Your task to perform on an android device: stop showing notifications on the lock screen Image 0: 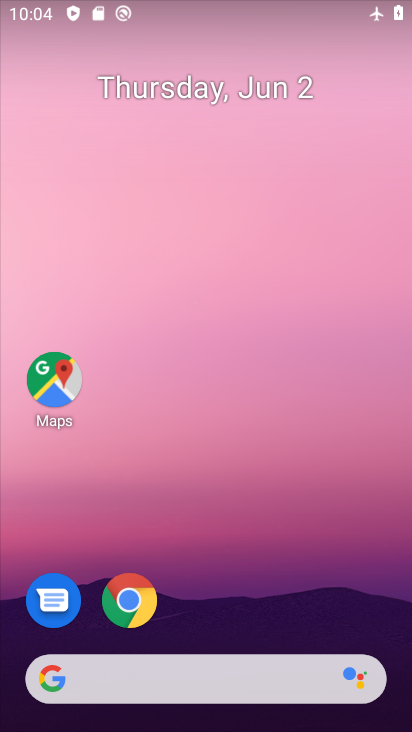
Step 0: press home button
Your task to perform on an android device: stop showing notifications on the lock screen Image 1: 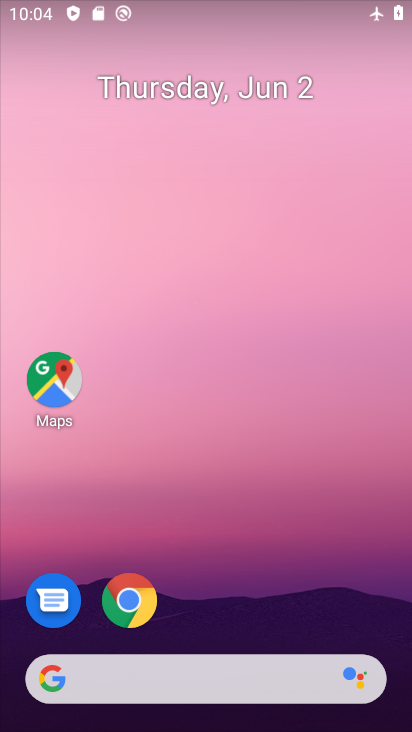
Step 1: drag from (184, 679) to (273, 190)
Your task to perform on an android device: stop showing notifications on the lock screen Image 2: 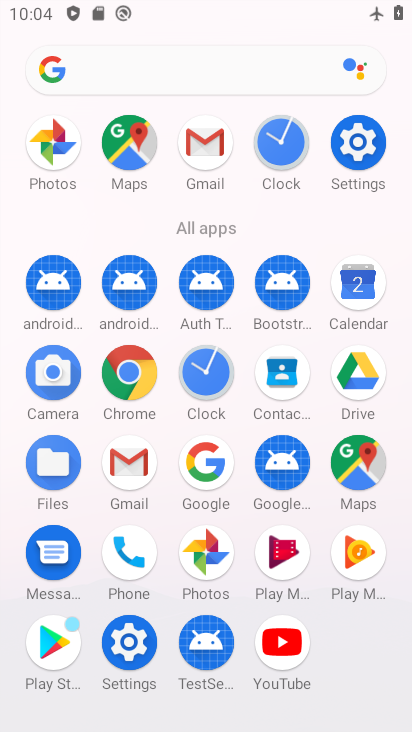
Step 2: click (359, 154)
Your task to perform on an android device: stop showing notifications on the lock screen Image 3: 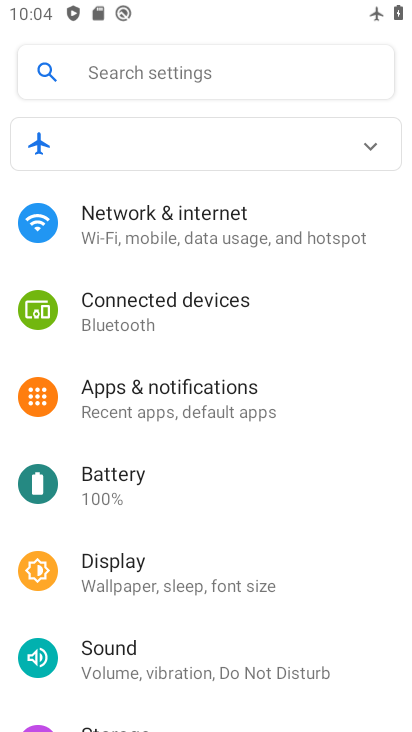
Step 3: click (194, 395)
Your task to perform on an android device: stop showing notifications on the lock screen Image 4: 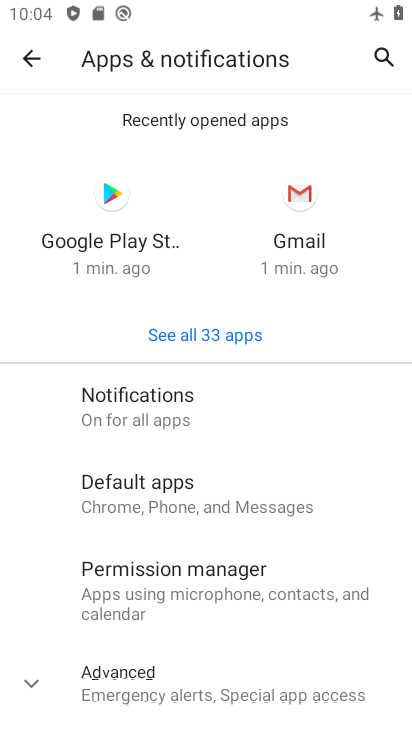
Step 4: click (156, 401)
Your task to perform on an android device: stop showing notifications on the lock screen Image 5: 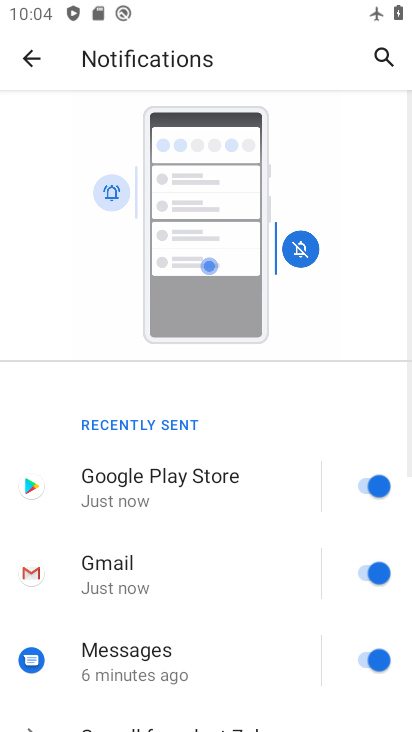
Step 5: drag from (221, 655) to (341, 160)
Your task to perform on an android device: stop showing notifications on the lock screen Image 6: 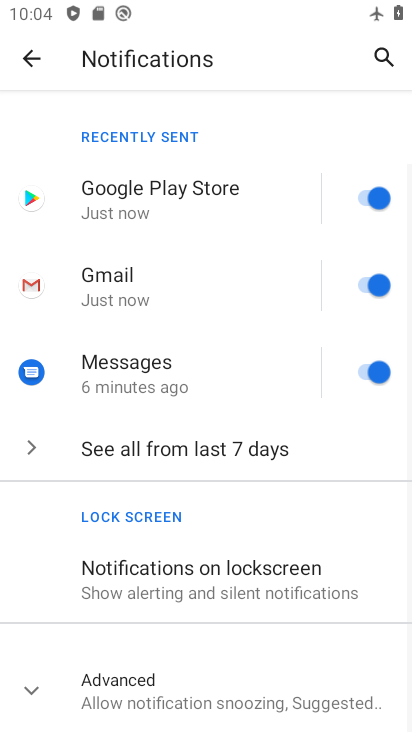
Step 6: click (182, 574)
Your task to perform on an android device: stop showing notifications on the lock screen Image 7: 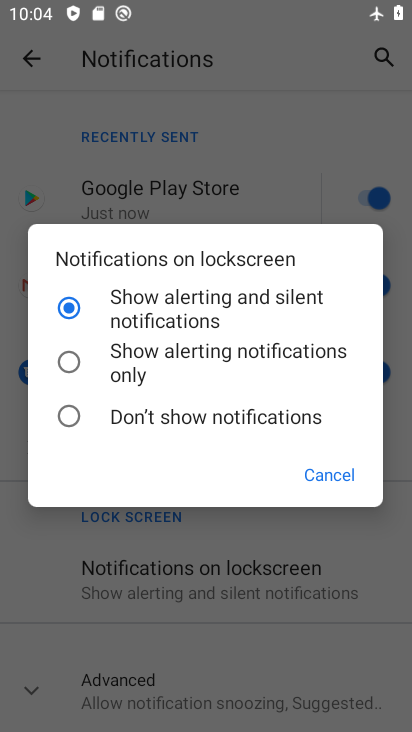
Step 7: click (64, 411)
Your task to perform on an android device: stop showing notifications on the lock screen Image 8: 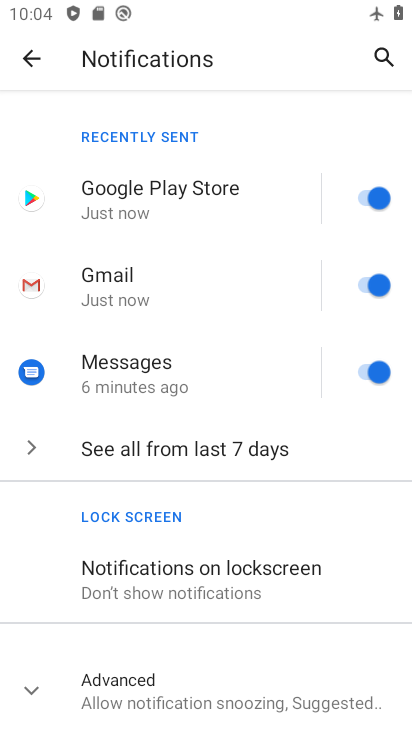
Step 8: task complete